Your task to perform on an android device: empty trash in the gmail app Image 0: 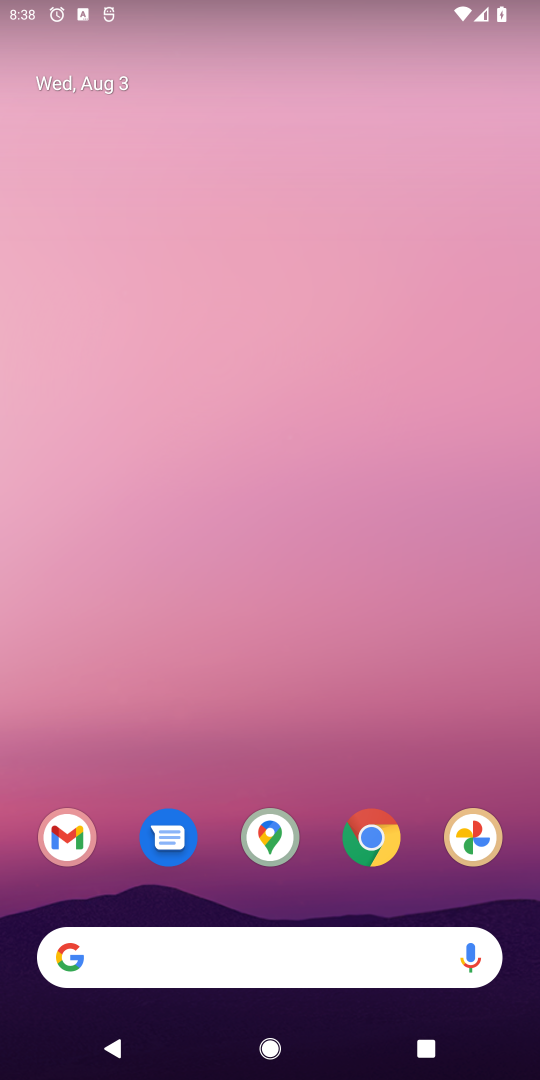
Step 0: press home button
Your task to perform on an android device: empty trash in the gmail app Image 1: 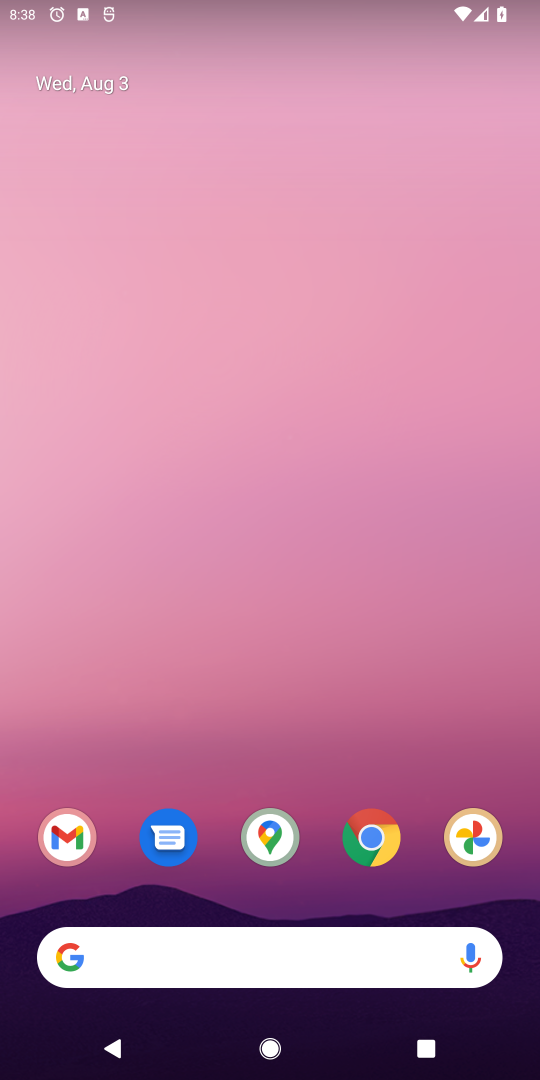
Step 1: click (73, 838)
Your task to perform on an android device: empty trash in the gmail app Image 2: 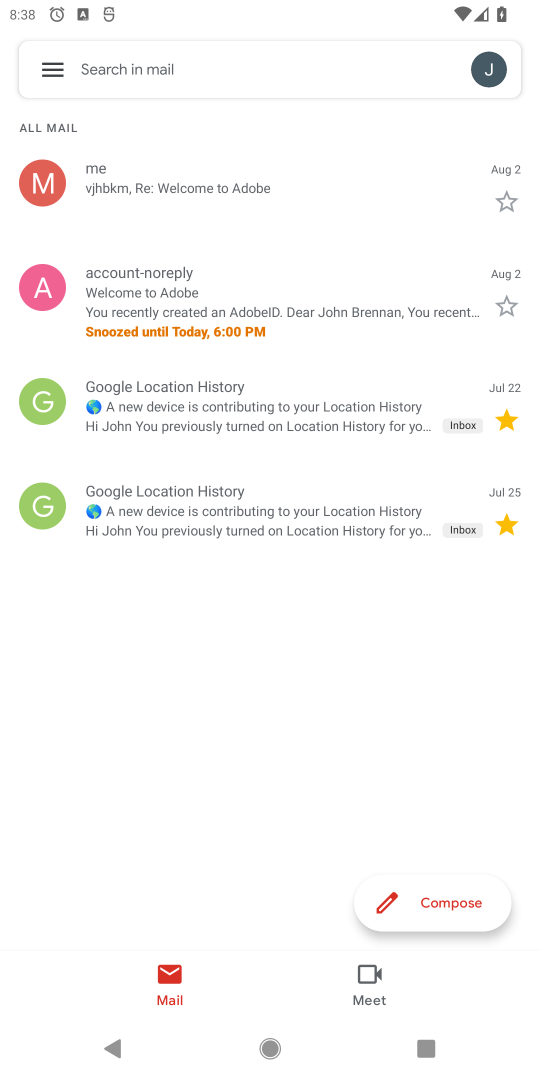
Step 2: click (45, 80)
Your task to perform on an android device: empty trash in the gmail app Image 3: 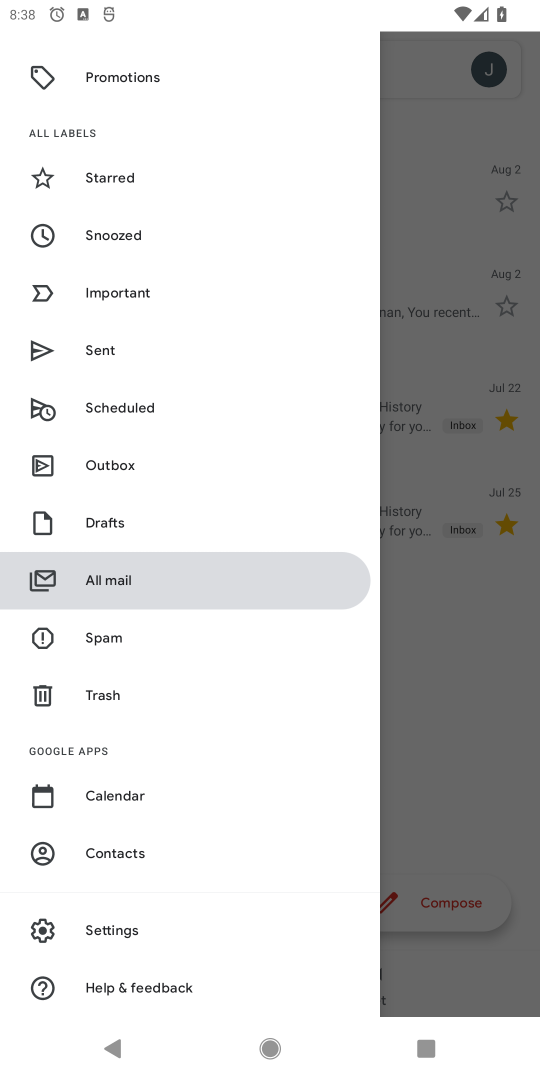
Step 3: click (103, 698)
Your task to perform on an android device: empty trash in the gmail app Image 4: 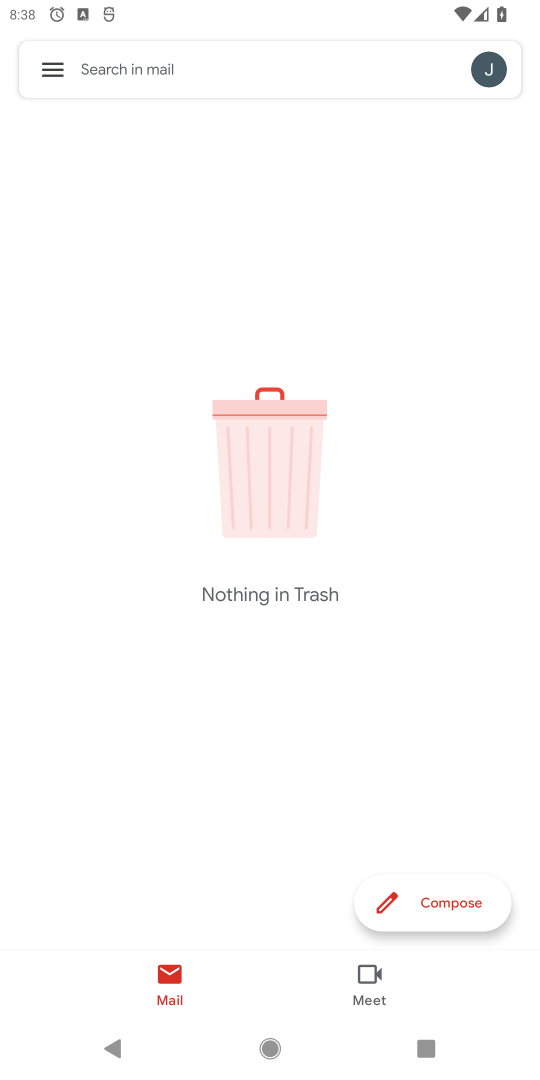
Step 4: task complete